Your task to perform on an android device: Open Google Chrome and click the shortcut for Amazon.com Image 0: 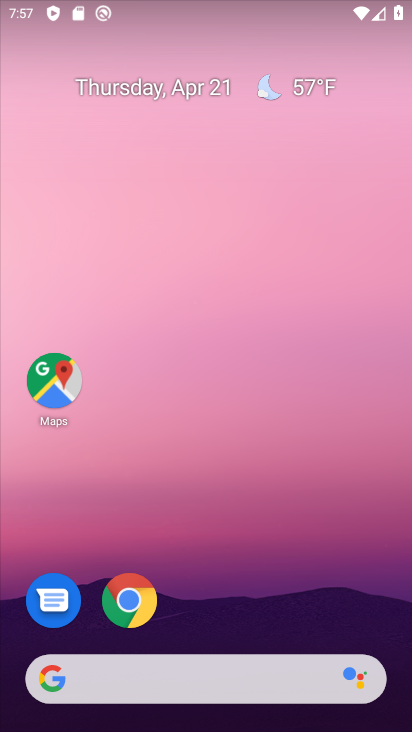
Step 0: click (138, 614)
Your task to perform on an android device: Open Google Chrome and click the shortcut for Amazon.com Image 1: 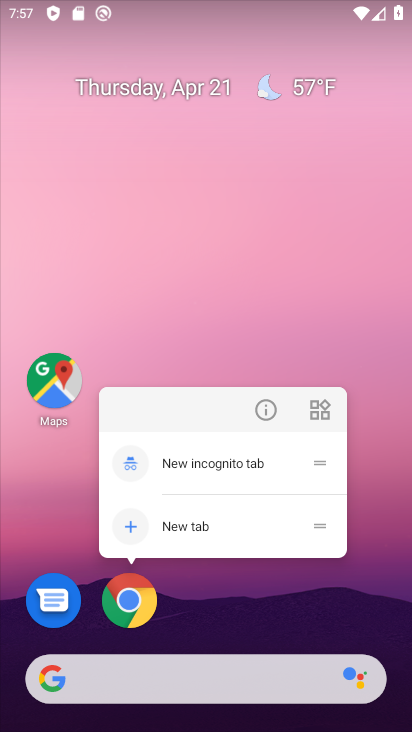
Step 1: click (137, 598)
Your task to perform on an android device: Open Google Chrome and click the shortcut for Amazon.com Image 2: 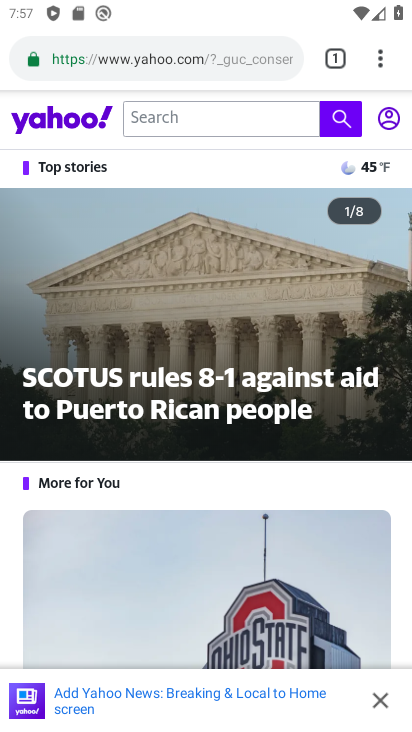
Step 2: press back button
Your task to perform on an android device: Open Google Chrome and click the shortcut for Amazon.com Image 3: 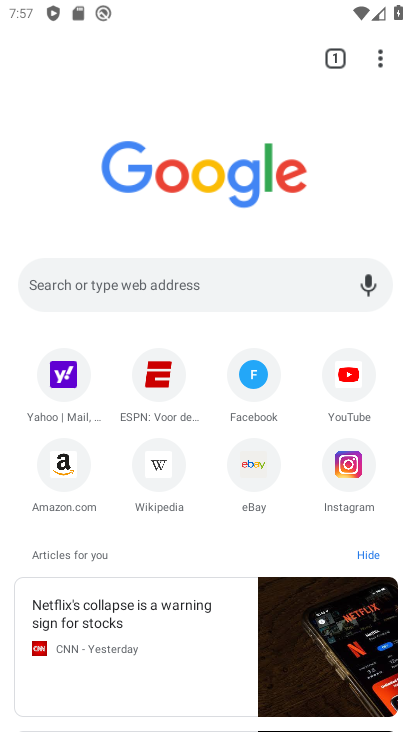
Step 3: click (68, 463)
Your task to perform on an android device: Open Google Chrome and click the shortcut for Amazon.com Image 4: 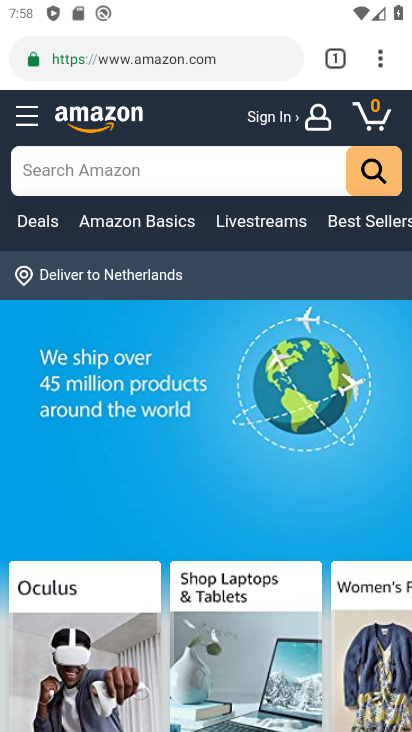
Step 4: task complete